Your task to perform on an android device: Is it going to rain today? Image 0: 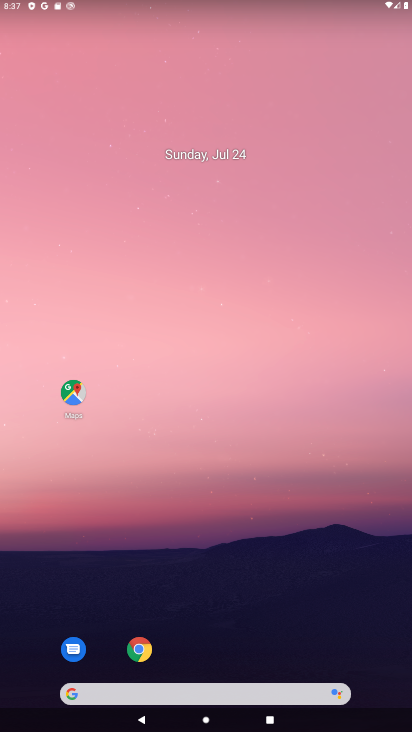
Step 0: click (145, 648)
Your task to perform on an android device: Is it going to rain today? Image 1: 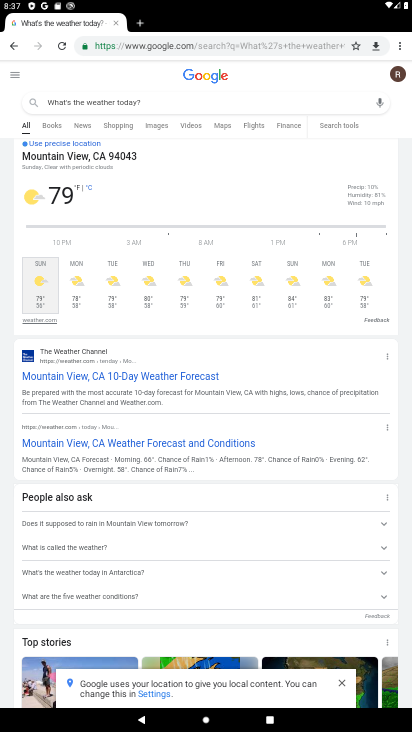
Step 1: click (240, 96)
Your task to perform on an android device: Is it going to rain today? Image 2: 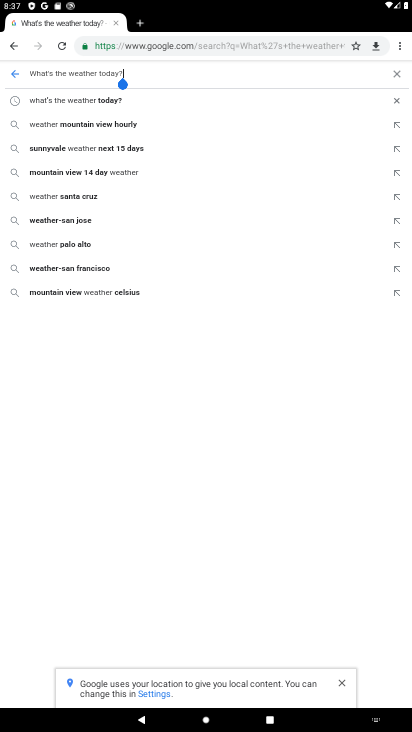
Step 2: click (397, 78)
Your task to perform on an android device: Is it going to rain today? Image 3: 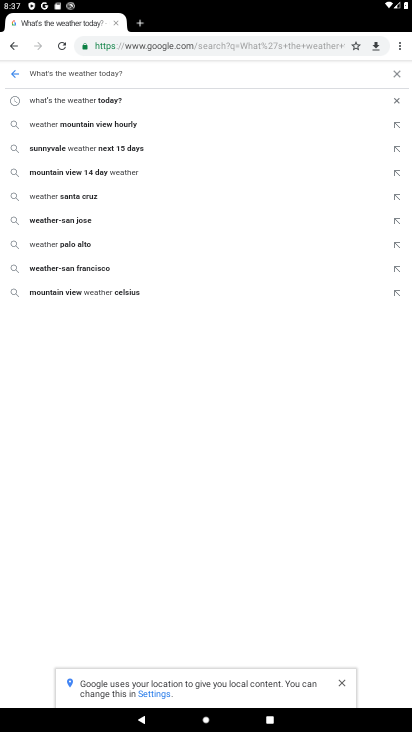
Step 3: click (397, 73)
Your task to perform on an android device: Is it going to rain today? Image 4: 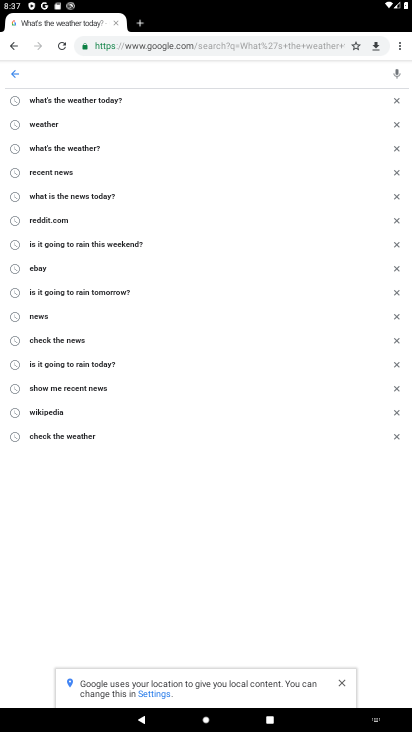
Step 4: type "Is it going to rain today?"
Your task to perform on an android device: Is it going to rain today? Image 5: 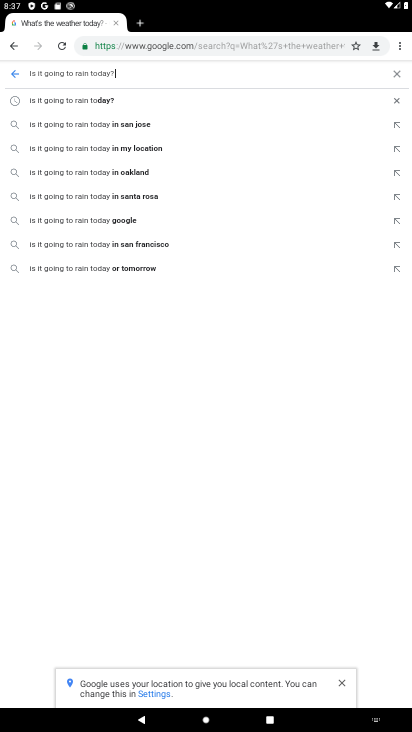
Step 5: click (93, 102)
Your task to perform on an android device: Is it going to rain today? Image 6: 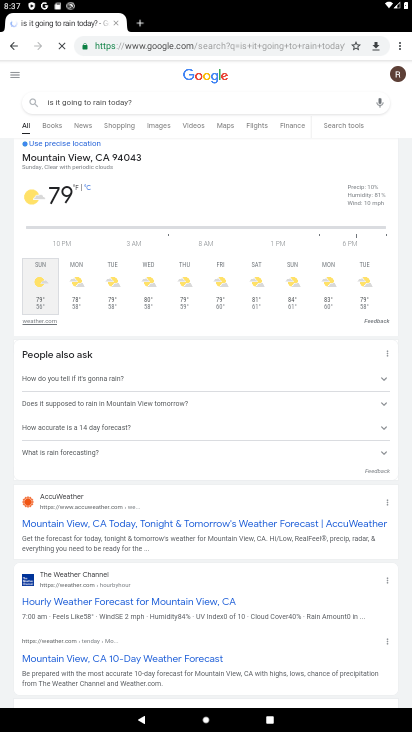
Step 6: task complete